Your task to perform on an android device: see creations saved in the google photos Image 0: 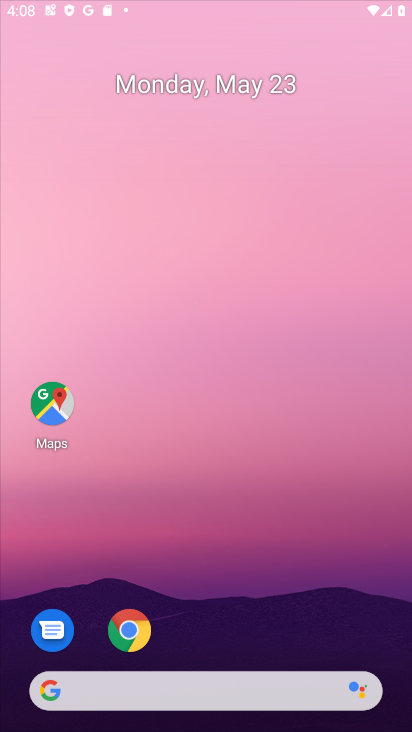
Step 0: press home button
Your task to perform on an android device: see creations saved in the google photos Image 1: 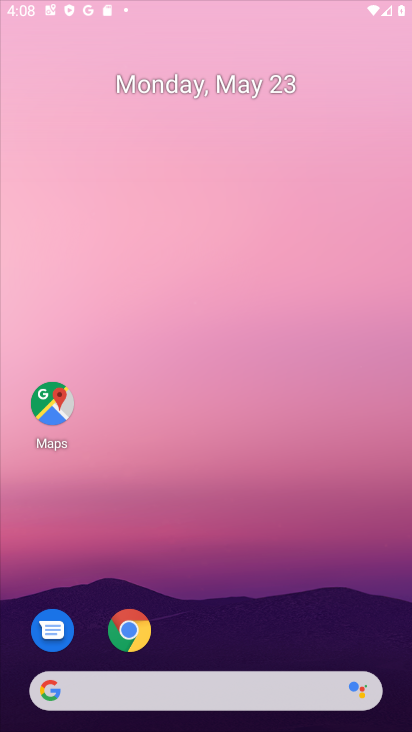
Step 1: click (237, 68)
Your task to perform on an android device: see creations saved in the google photos Image 2: 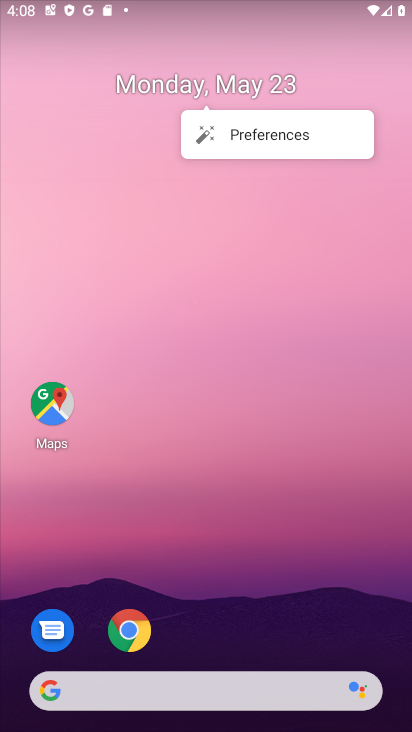
Step 2: press home button
Your task to perform on an android device: see creations saved in the google photos Image 3: 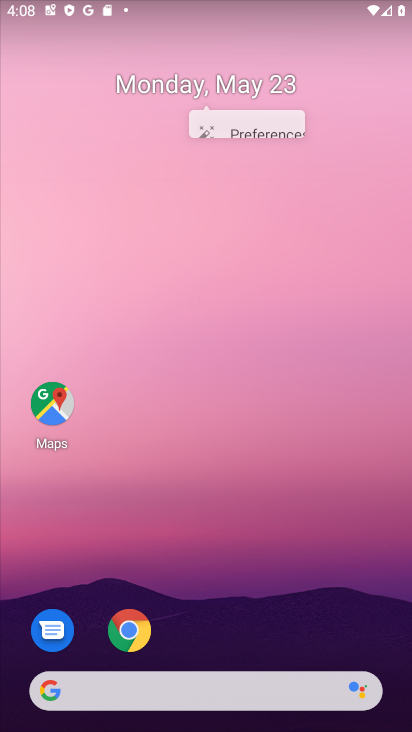
Step 3: press home button
Your task to perform on an android device: see creations saved in the google photos Image 4: 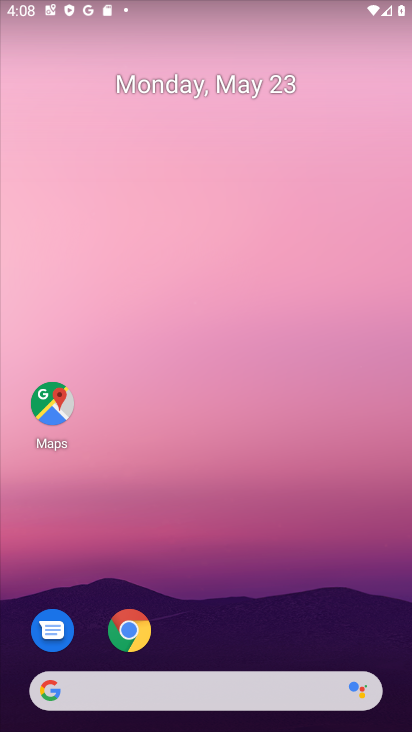
Step 4: drag from (213, 652) to (198, 74)
Your task to perform on an android device: see creations saved in the google photos Image 5: 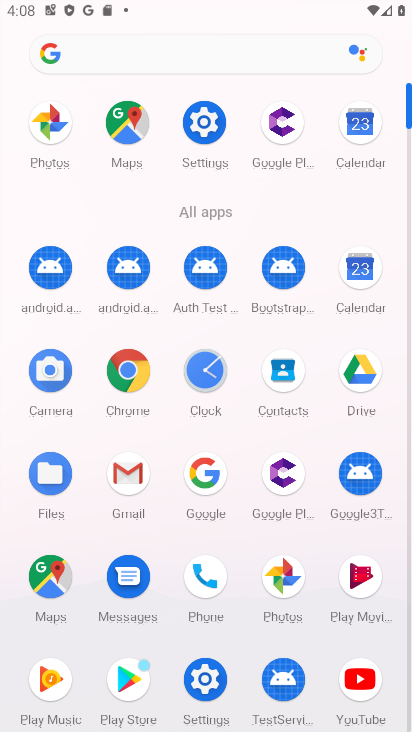
Step 5: click (280, 570)
Your task to perform on an android device: see creations saved in the google photos Image 6: 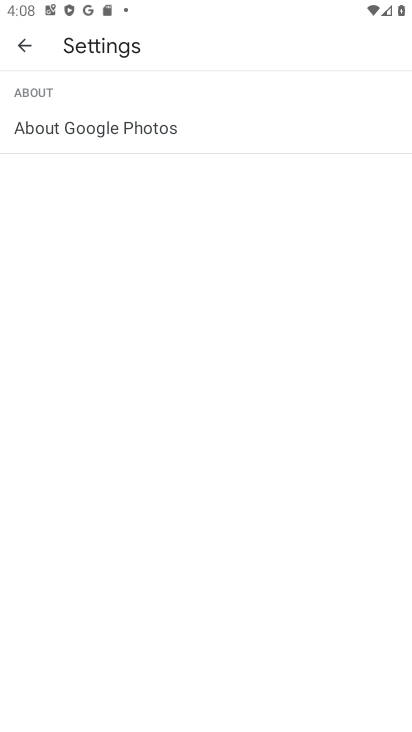
Step 6: click (27, 44)
Your task to perform on an android device: see creations saved in the google photos Image 7: 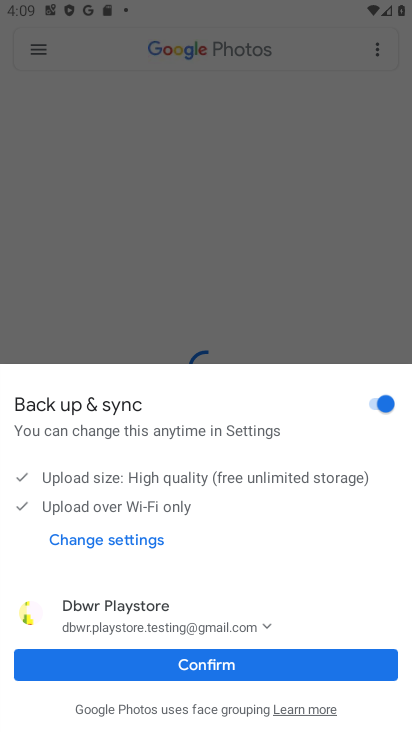
Step 7: click (211, 662)
Your task to perform on an android device: see creations saved in the google photos Image 8: 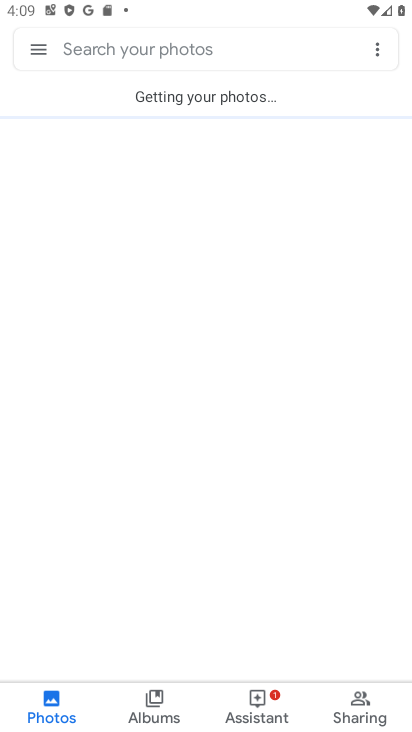
Step 8: click (373, 48)
Your task to perform on an android device: see creations saved in the google photos Image 9: 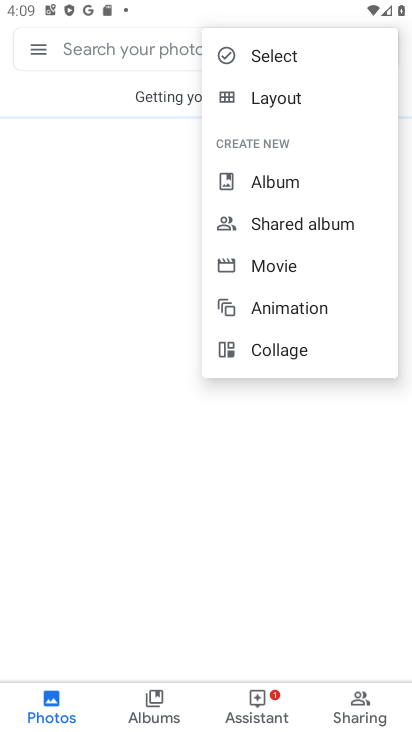
Step 9: click (124, 300)
Your task to perform on an android device: see creations saved in the google photos Image 10: 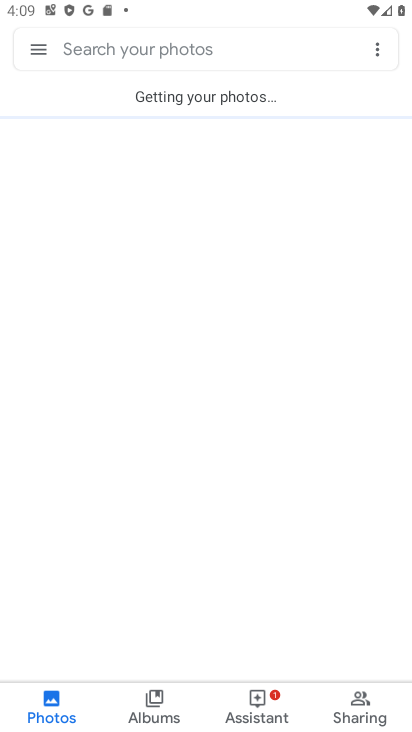
Step 10: click (34, 52)
Your task to perform on an android device: see creations saved in the google photos Image 11: 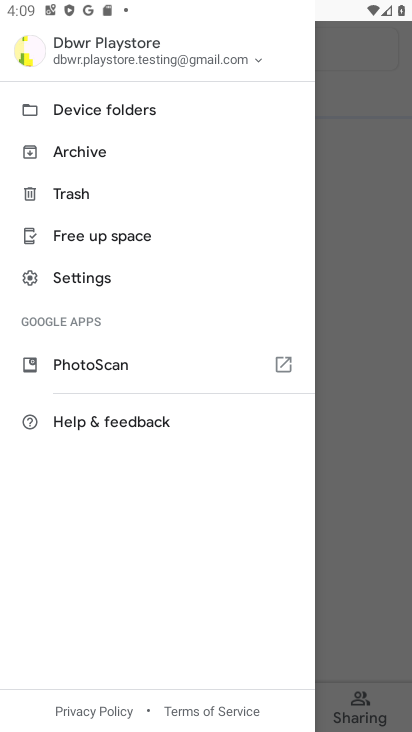
Step 11: click (351, 206)
Your task to perform on an android device: see creations saved in the google photos Image 12: 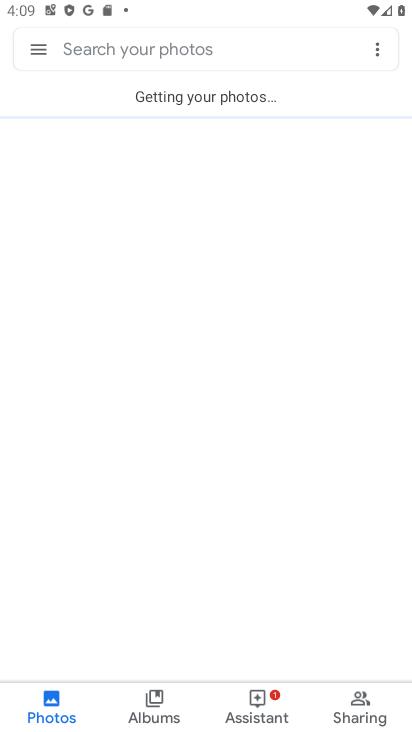
Step 12: click (120, 44)
Your task to perform on an android device: see creations saved in the google photos Image 13: 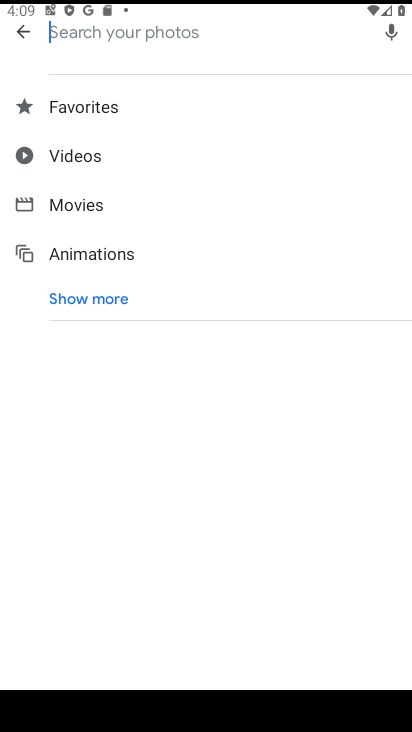
Step 13: click (103, 296)
Your task to perform on an android device: see creations saved in the google photos Image 14: 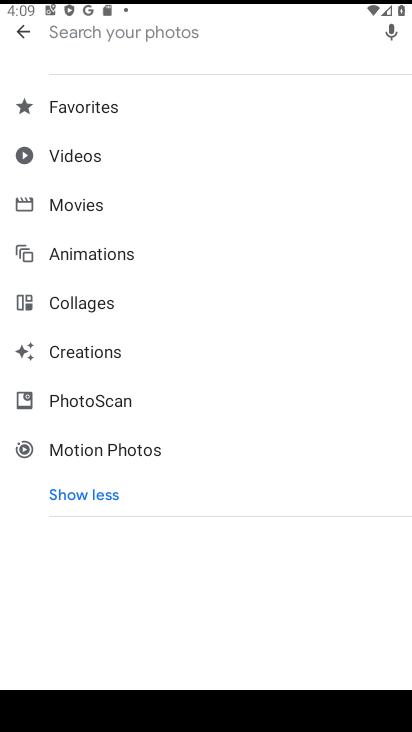
Step 14: click (130, 347)
Your task to perform on an android device: see creations saved in the google photos Image 15: 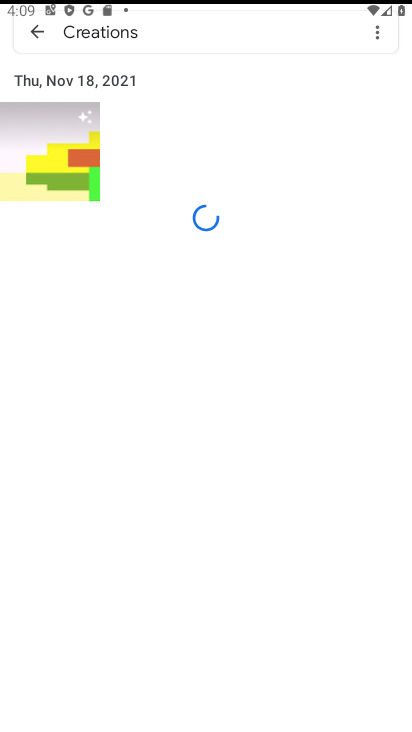
Step 15: task complete